Your task to perform on an android device: empty trash in the gmail app Image 0: 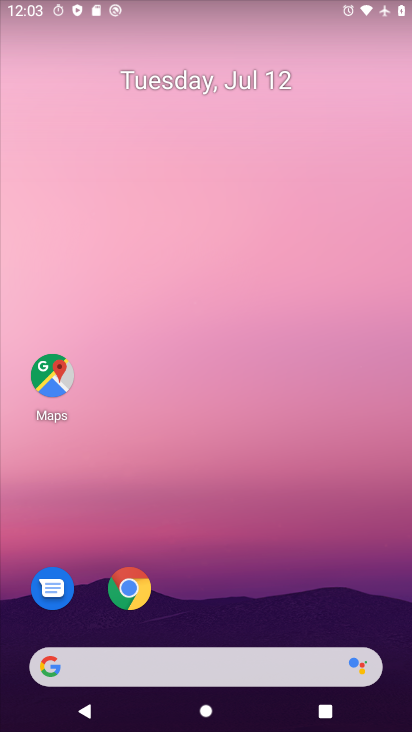
Step 0: drag from (121, 676) to (259, 194)
Your task to perform on an android device: empty trash in the gmail app Image 1: 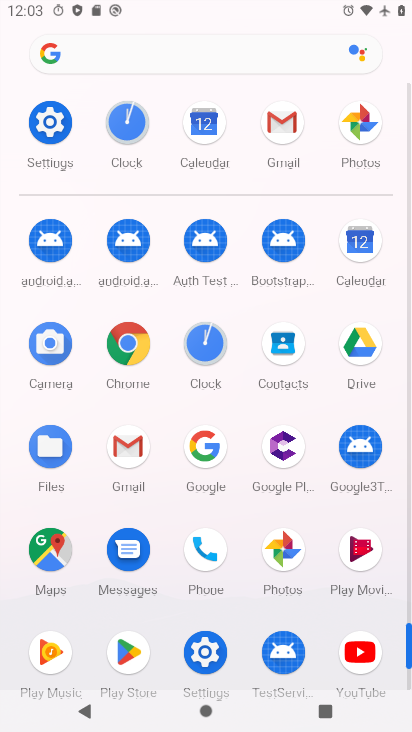
Step 1: click (285, 125)
Your task to perform on an android device: empty trash in the gmail app Image 2: 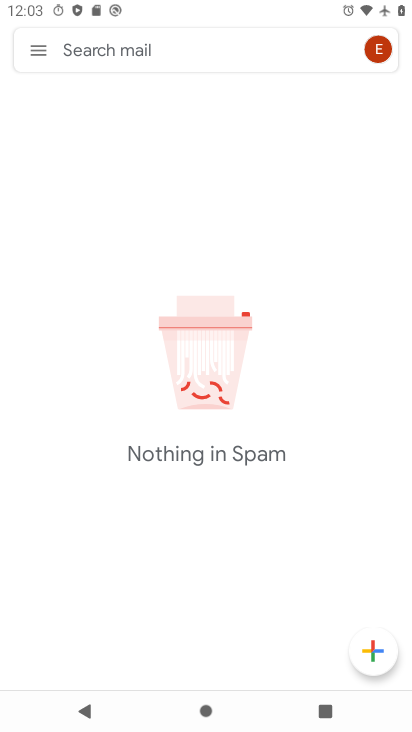
Step 2: click (41, 53)
Your task to perform on an android device: empty trash in the gmail app Image 3: 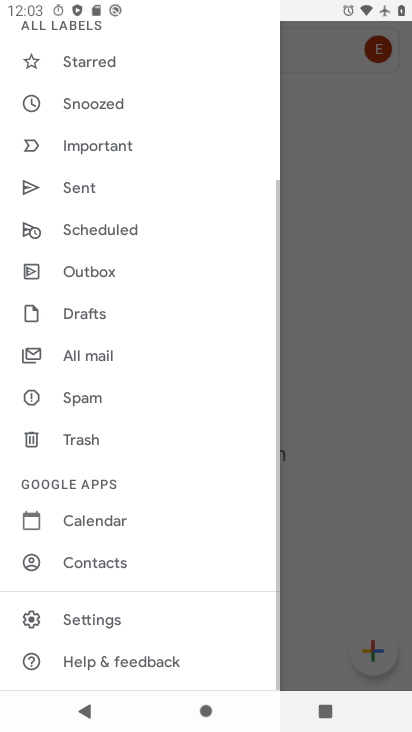
Step 3: click (62, 430)
Your task to perform on an android device: empty trash in the gmail app Image 4: 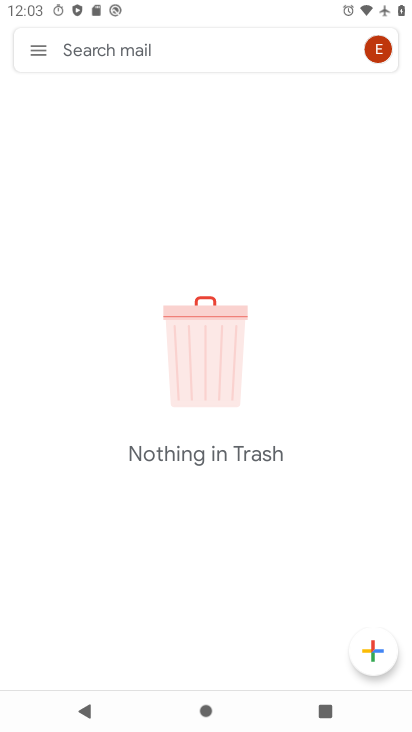
Step 4: task complete